Your task to perform on an android device: see creations saved in the google photos Image 0: 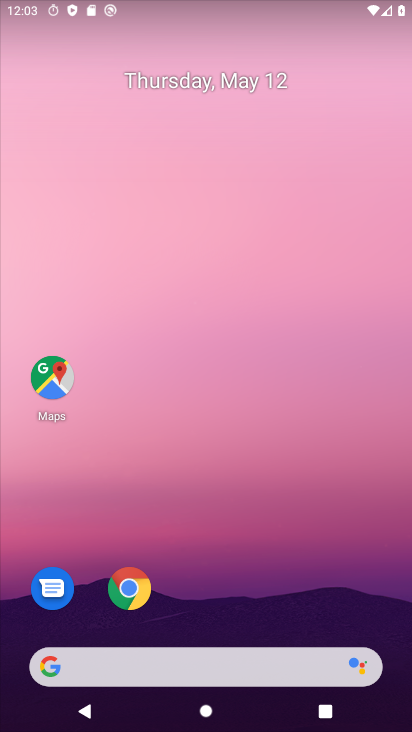
Step 0: drag from (215, 649) to (305, 121)
Your task to perform on an android device: see creations saved in the google photos Image 1: 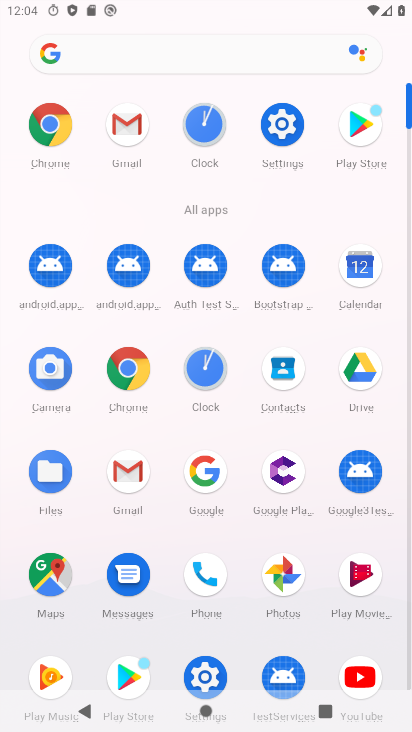
Step 1: click (279, 574)
Your task to perform on an android device: see creations saved in the google photos Image 2: 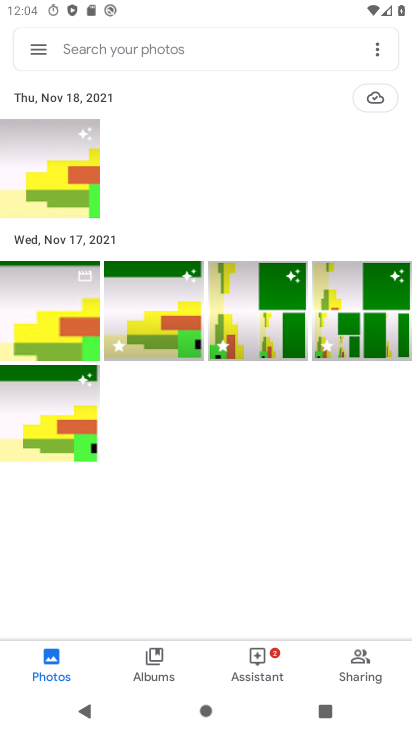
Step 2: click (147, 662)
Your task to perform on an android device: see creations saved in the google photos Image 3: 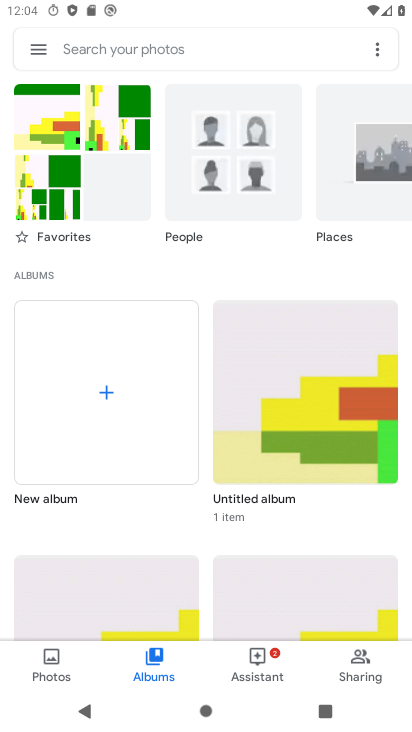
Step 3: task complete